Your task to perform on an android device: Go to location settings Image 0: 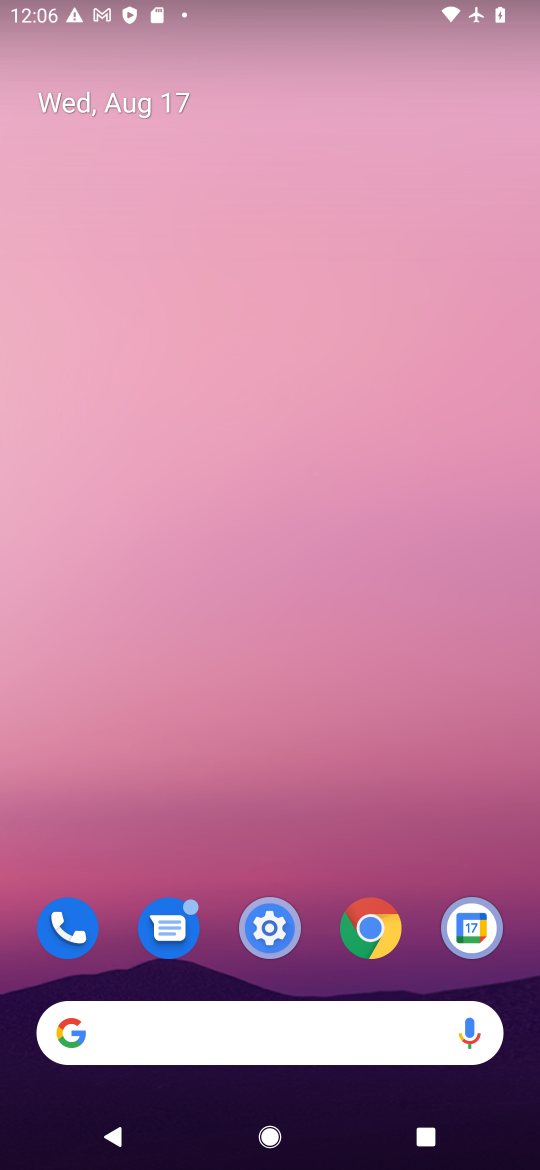
Step 0: click (255, 937)
Your task to perform on an android device: Go to location settings Image 1: 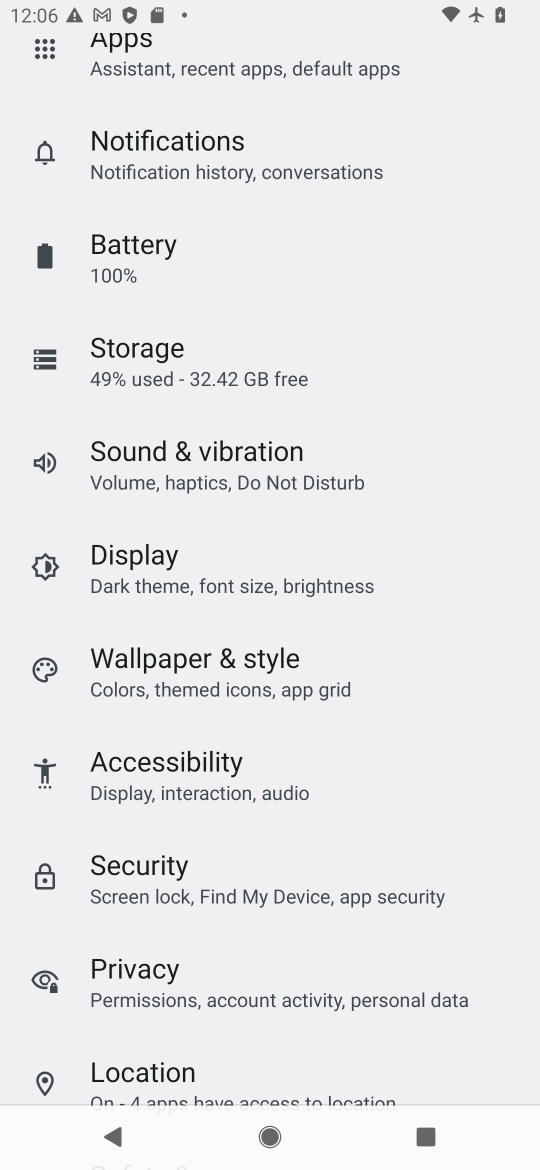
Step 1: drag from (233, 975) to (233, 607)
Your task to perform on an android device: Go to location settings Image 2: 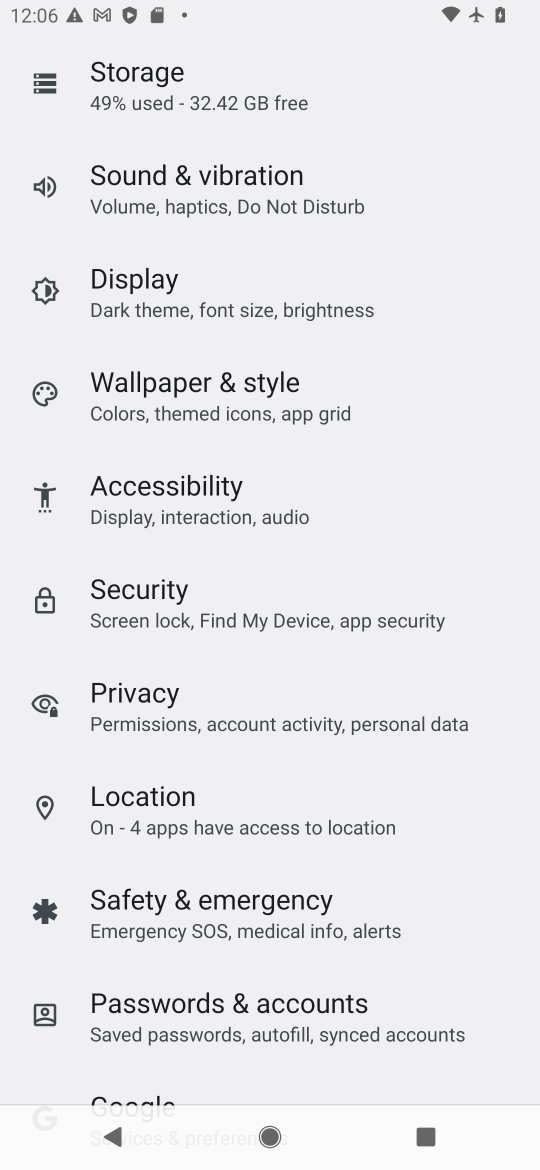
Step 2: click (227, 816)
Your task to perform on an android device: Go to location settings Image 3: 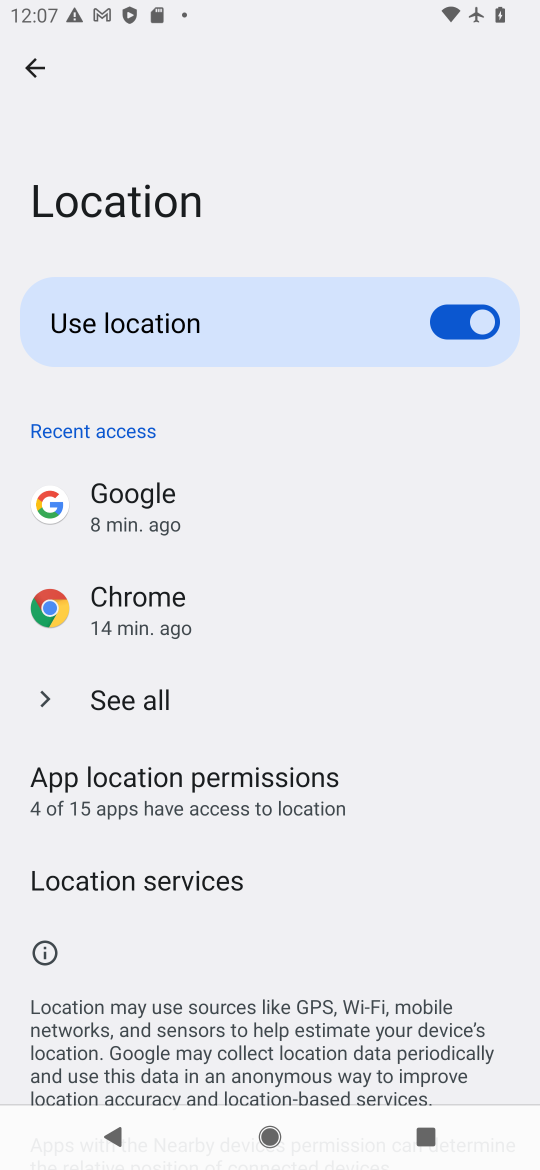
Step 3: task complete